Your task to perform on an android device: Search for Mexican restaurants on Maps Image 0: 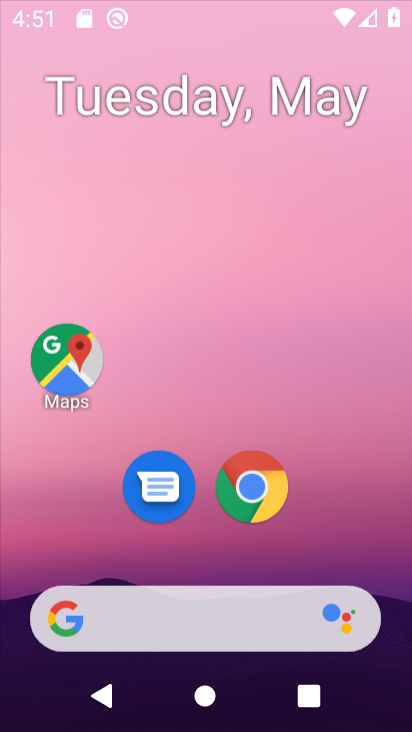
Step 0: drag from (349, 557) to (306, 129)
Your task to perform on an android device: Search for Mexican restaurants on Maps Image 1: 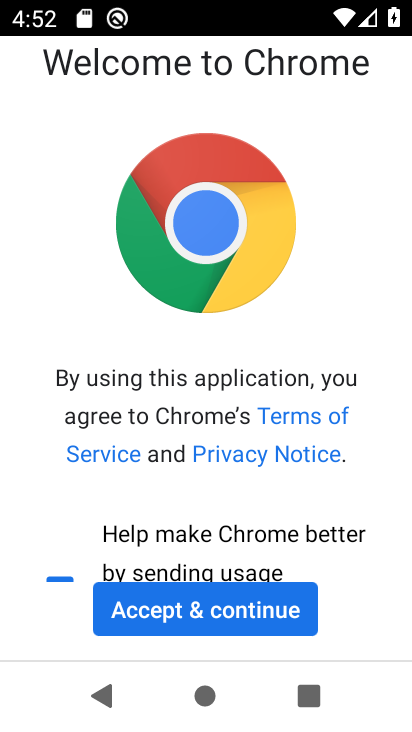
Step 1: press home button
Your task to perform on an android device: Search for Mexican restaurants on Maps Image 2: 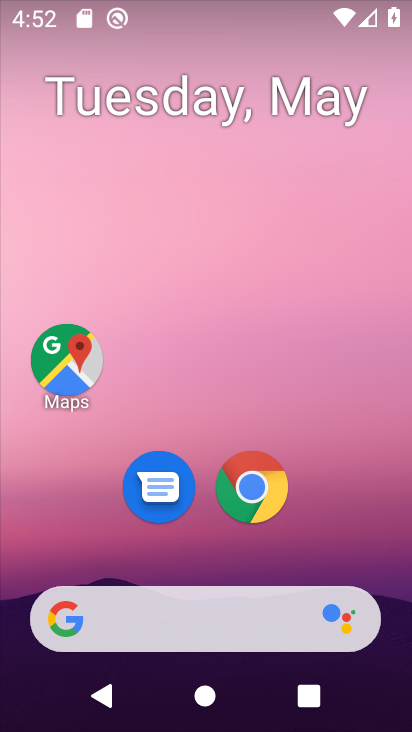
Step 2: drag from (332, 550) to (297, 51)
Your task to perform on an android device: Search for Mexican restaurants on Maps Image 3: 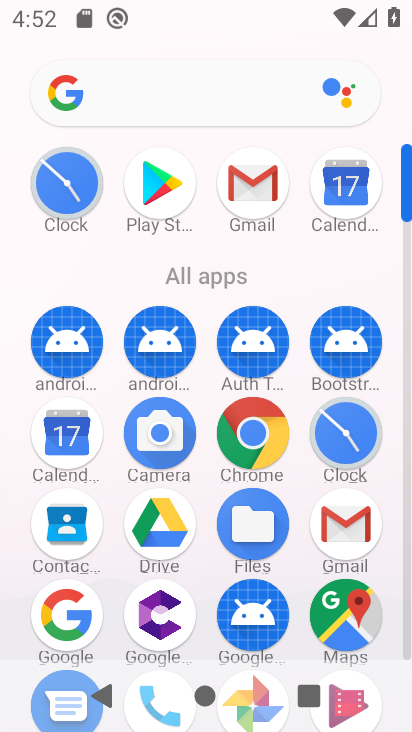
Step 3: click (347, 627)
Your task to perform on an android device: Search for Mexican restaurants on Maps Image 4: 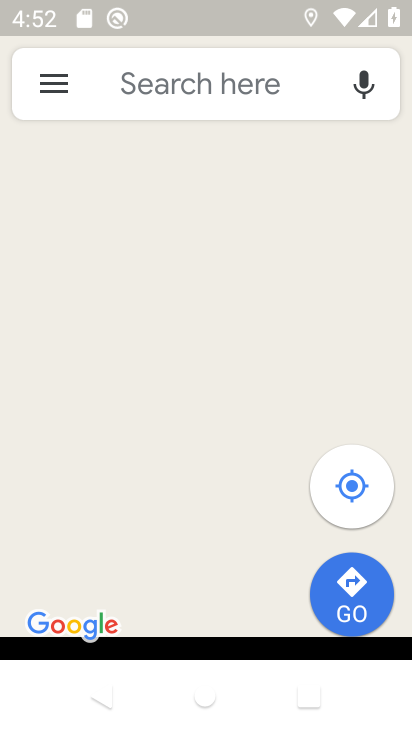
Step 4: click (233, 103)
Your task to perform on an android device: Search for Mexican restaurants on Maps Image 5: 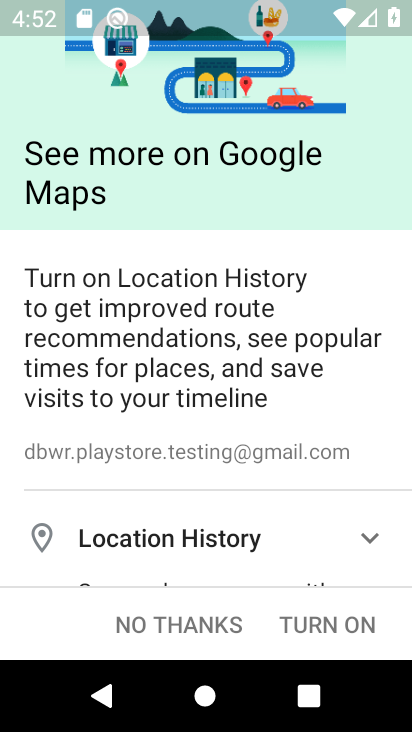
Step 5: click (334, 640)
Your task to perform on an android device: Search for Mexican restaurants on Maps Image 6: 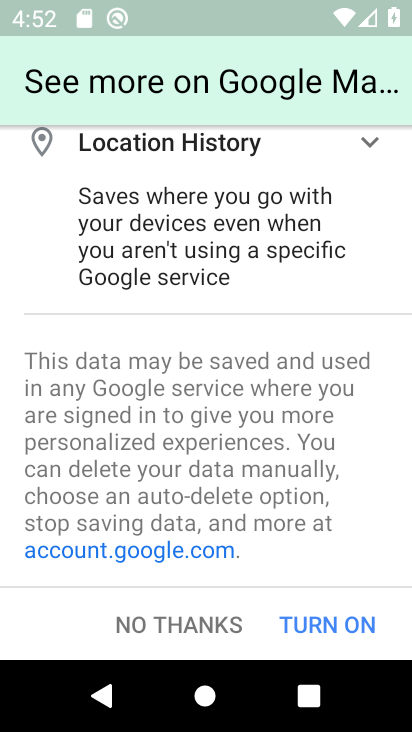
Step 6: click (295, 628)
Your task to perform on an android device: Search for Mexican restaurants on Maps Image 7: 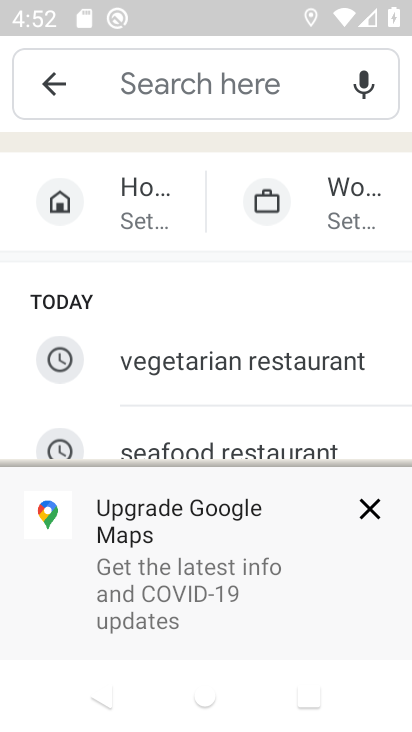
Step 7: click (359, 514)
Your task to perform on an android device: Search for Mexican restaurants on Maps Image 8: 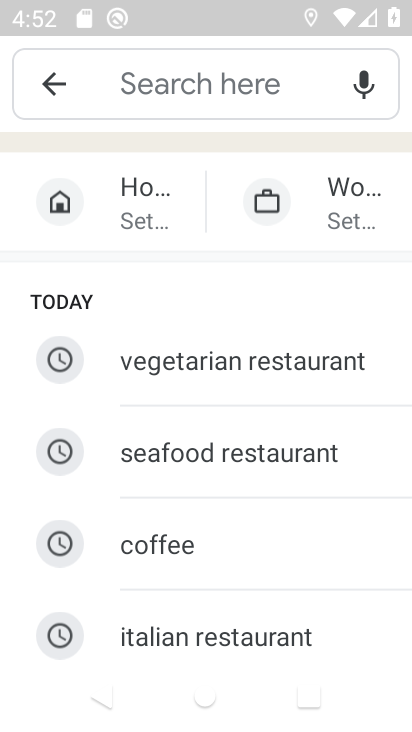
Step 8: drag from (265, 589) to (266, 368)
Your task to perform on an android device: Search for Mexican restaurants on Maps Image 9: 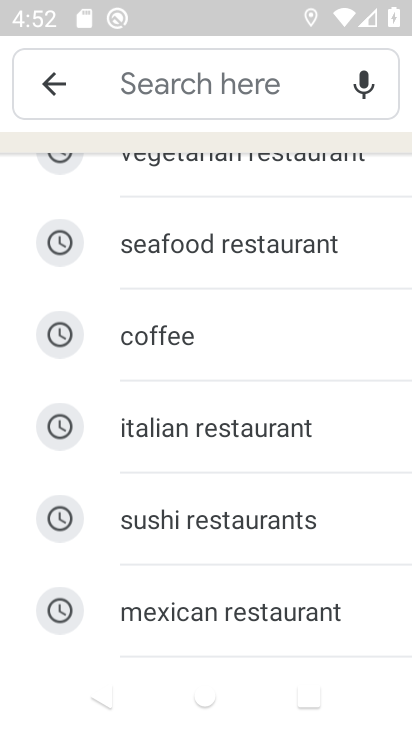
Step 9: drag from (249, 586) to (249, 319)
Your task to perform on an android device: Search for Mexican restaurants on Maps Image 10: 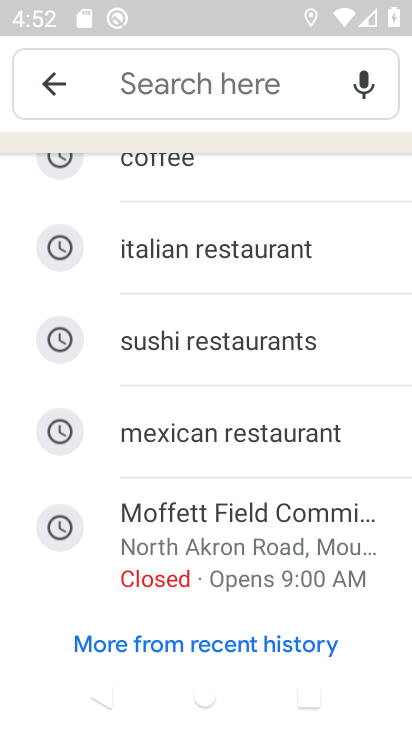
Step 10: click (238, 79)
Your task to perform on an android device: Search for Mexican restaurants on Maps Image 11: 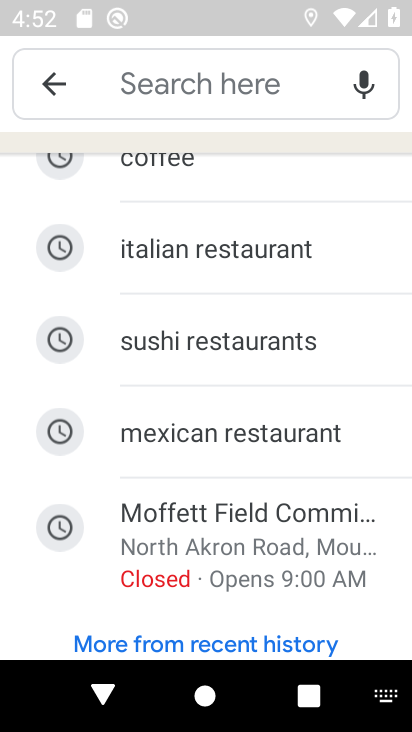
Step 11: type "mexicaan"
Your task to perform on an android device: Search for Mexican restaurants on Maps Image 12: 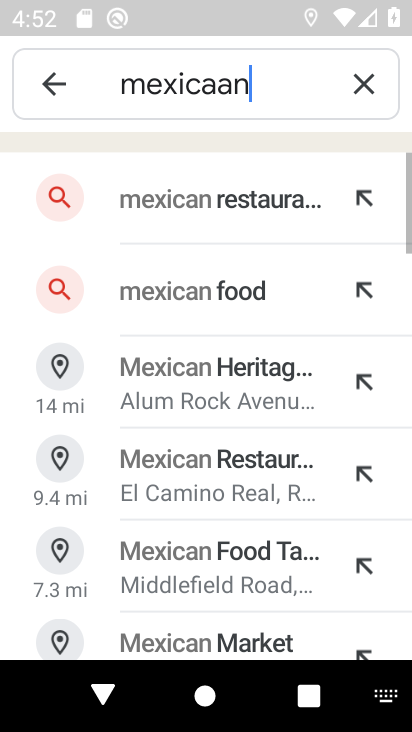
Step 12: click (260, 191)
Your task to perform on an android device: Search for Mexican restaurants on Maps Image 13: 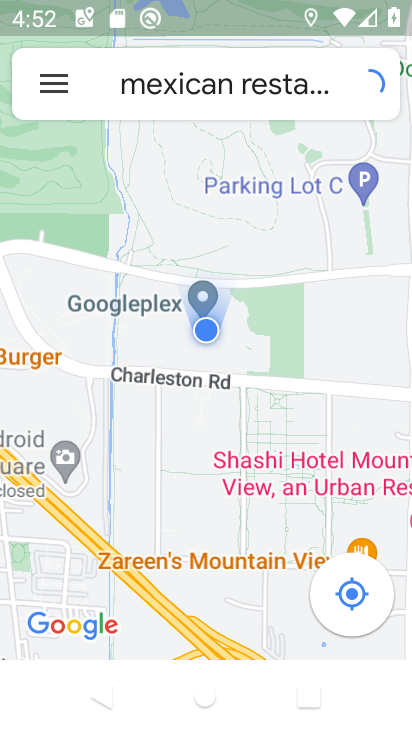
Step 13: task complete